Your task to perform on an android device: Open display settings Image 0: 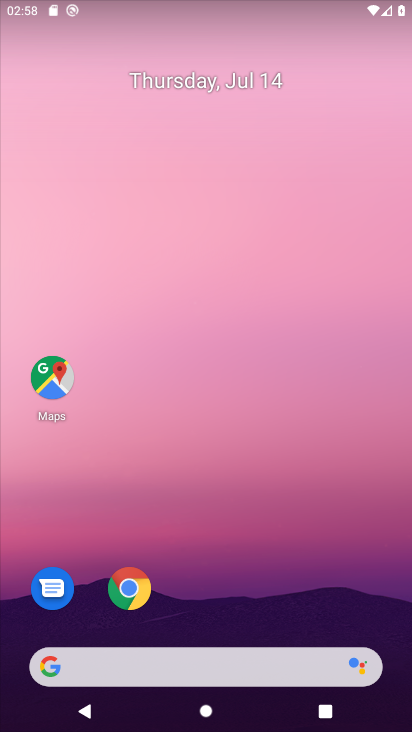
Step 0: drag from (287, 613) to (208, 159)
Your task to perform on an android device: Open display settings Image 1: 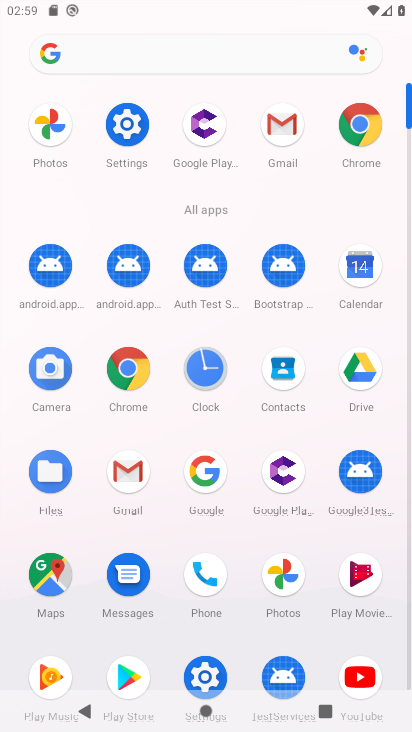
Step 1: click (130, 136)
Your task to perform on an android device: Open display settings Image 2: 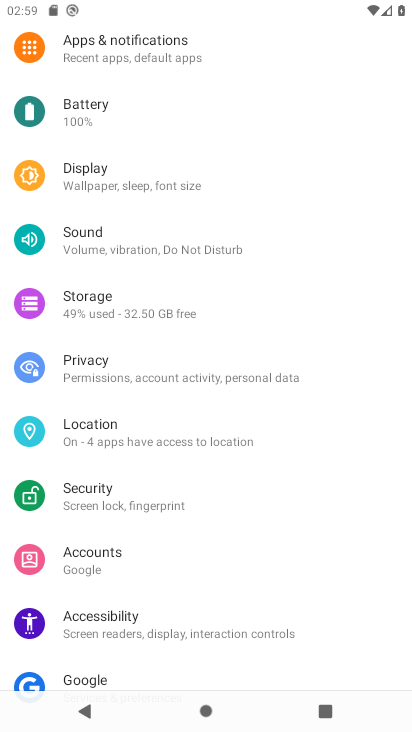
Step 2: click (152, 188)
Your task to perform on an android device: Open display settings Image 3: 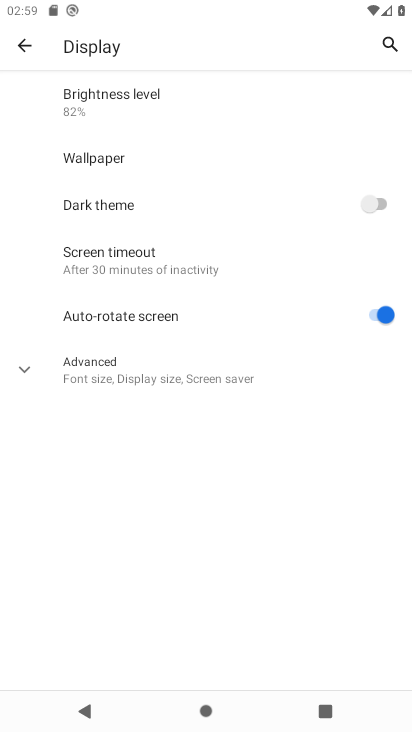
Step 3: task complete